Your task to perform on an android device: Find coffee shops on Maps Image 0: 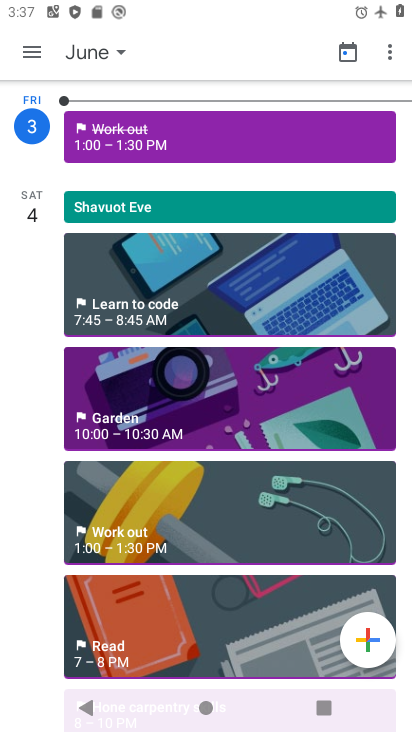
Step 0: press home button
Your task to perform on an android device: Find coffee shops on Maps Image 1: 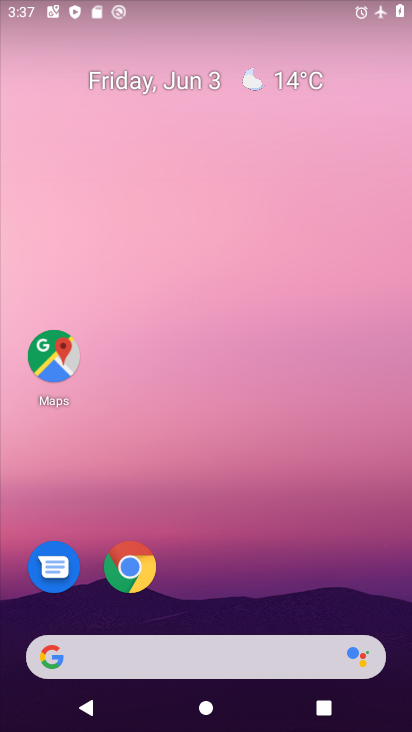
Step 1: drag from (240, 686) to (191, 131)
Your task to perform on an android device: Find coffee shops on Maps Image 2: 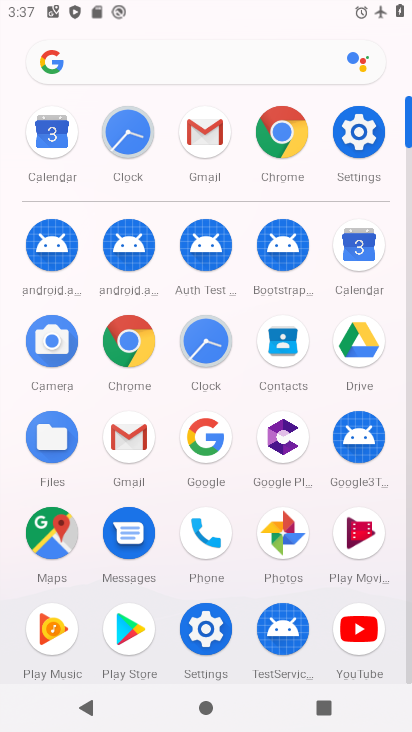
Step 2: click (51, 527)
Your task to perform on an android device: Find coffee shops on Maps Image 3: 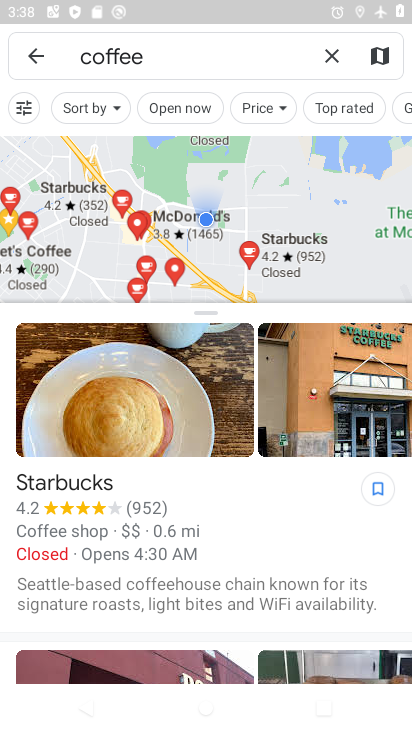
Step 3: click (194, 64)
Your task to perform on an android device: Find coffee shops on Maps Image 4: 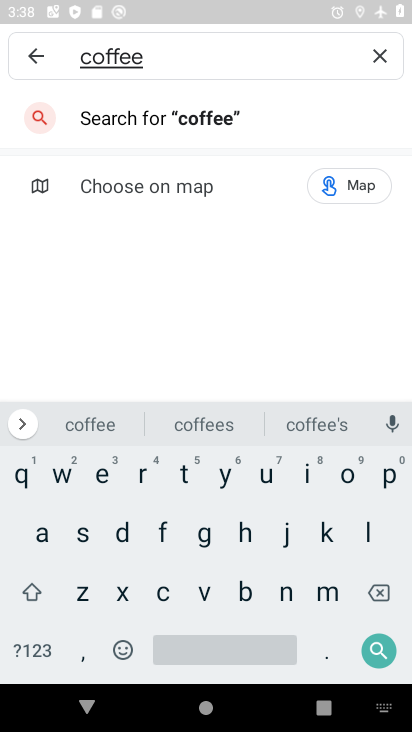
Step 4: click (367, 653)
Your task to perform on an android device: Find coffee shops on Maps Image 5: 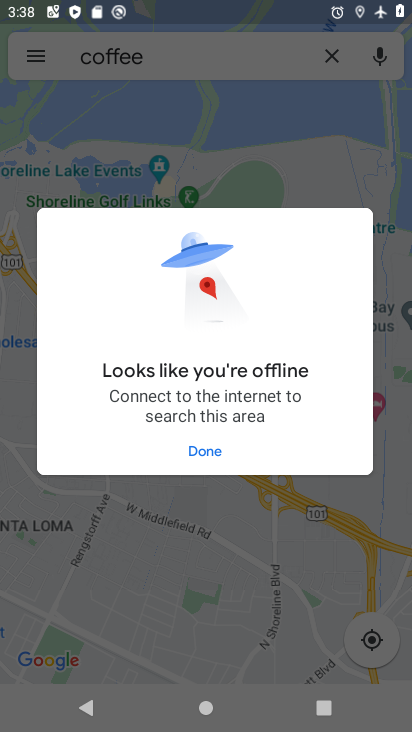
Step 5: click (204, 445)
Your task to perform on an android device: Find coffee shops on Maps Image 6: 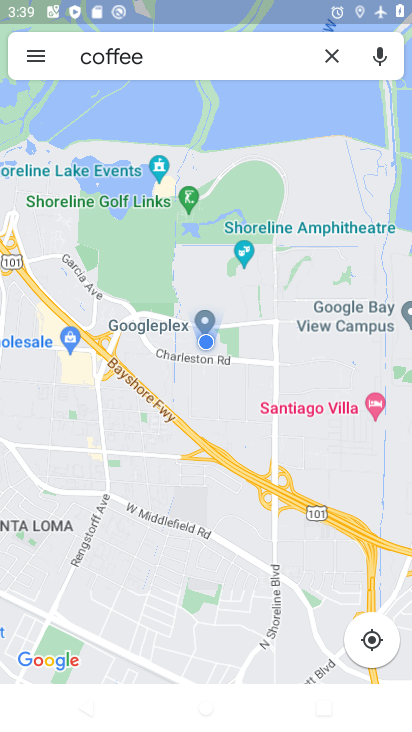
Step 6: task complete